Your task to perform on an android device: turn pop-ups on in chrome Image 0: 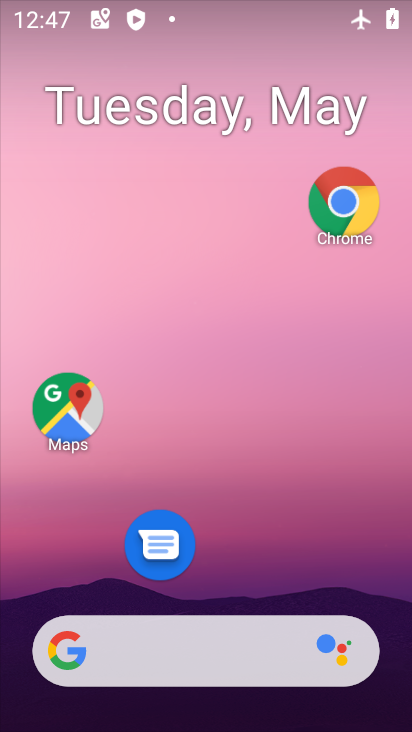
Step 0: click (352, 196)
Your task to perform on an android device: turn pop-ups on in chrome Image 1: 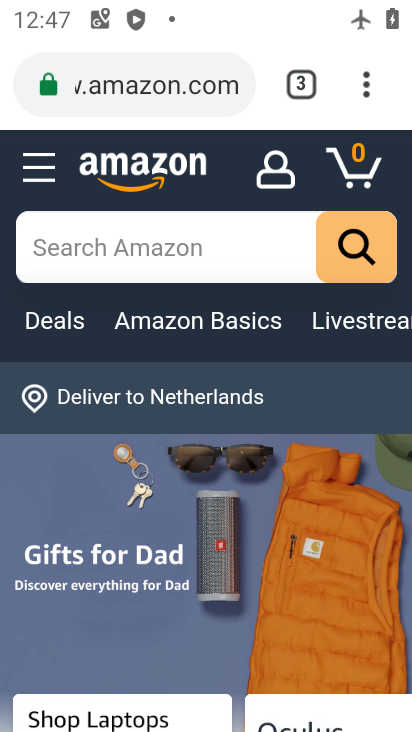
Step 1: click (377, 89)
Your task to perform on an android device: turn pop-ups on in chrome Image 2: 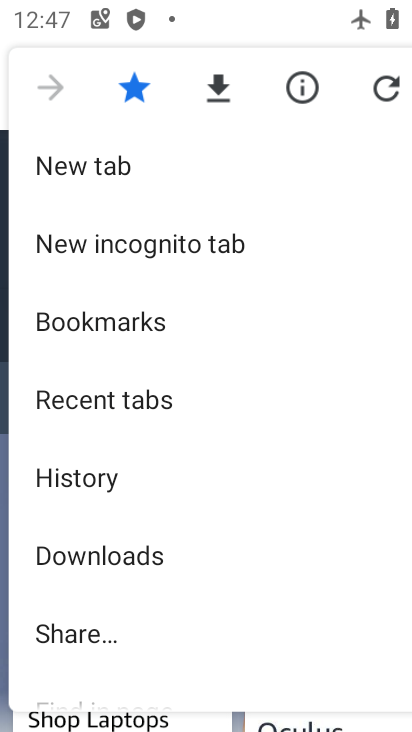
Step 2: drag from (95, 679) to (227, 218)
Your task to perform on an android device: turn pop-ups on in chrome Image 3: 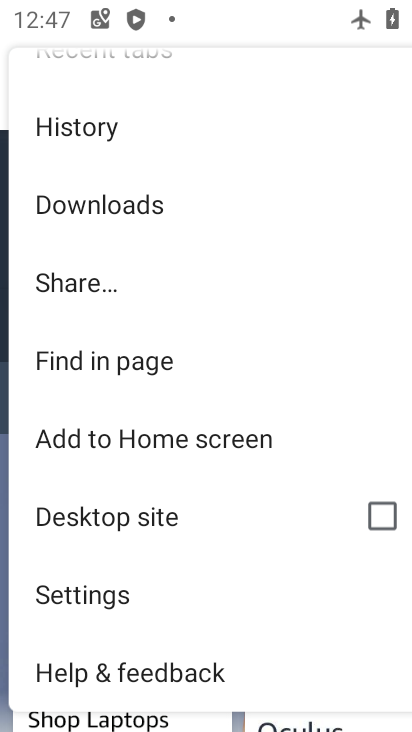
Step 3: click (94, 603)
Your task to perform on an android device: turn pop-ups on in chrome Image 4: 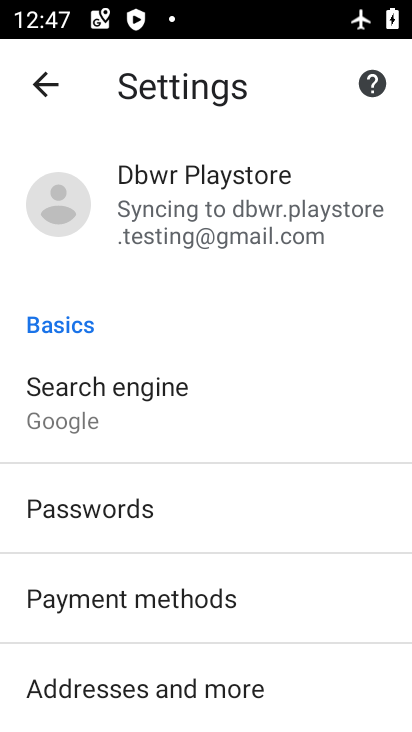
Step 4: drag from (120, 668) to (218, 207)
Your task to perform on an android device: turn pop-ups on in chrome Image 5: 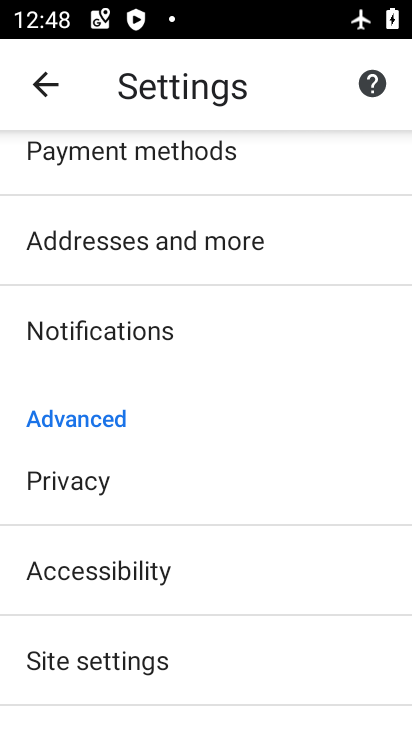
Step 5: click (132, 655)
Your task to perform on an android device: turn pop-ups on in chrome Image 6: 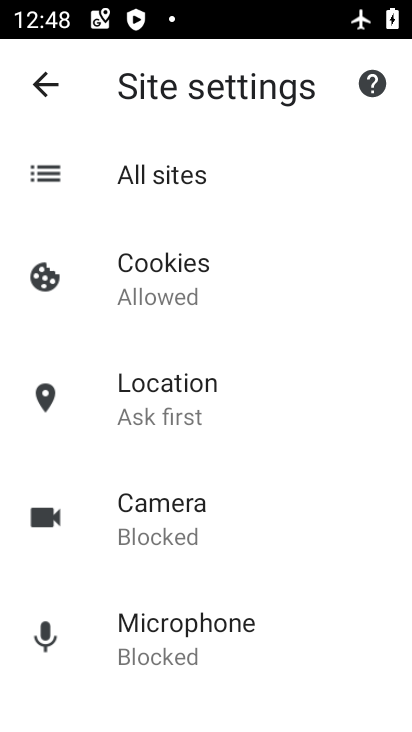
Step 6: drag from (237, 614) to (224, 1)
Your task to perform on an android device: turn pop-ups on in chrome Image 7: 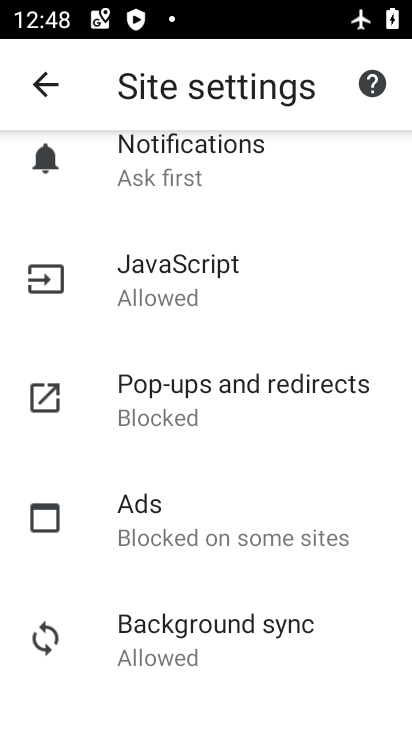
Step 7: click (279, 365)
Your task to perform on an android device: turn pop-ups on in chrome Image 8: 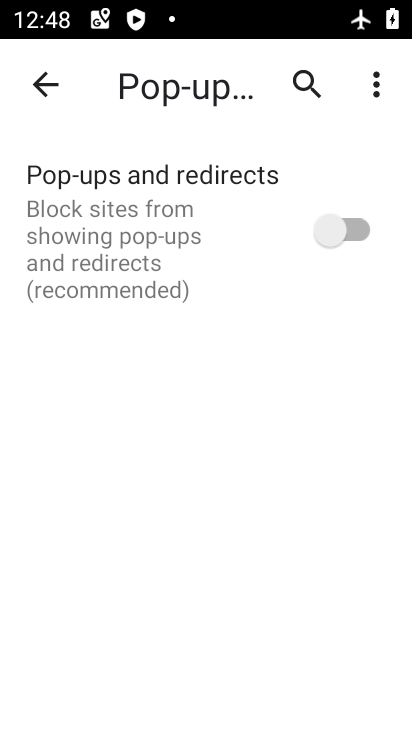
Step 8: click (347, 235)
Your task to perform on an android device: turn pop-ups on in chrome Image 9: 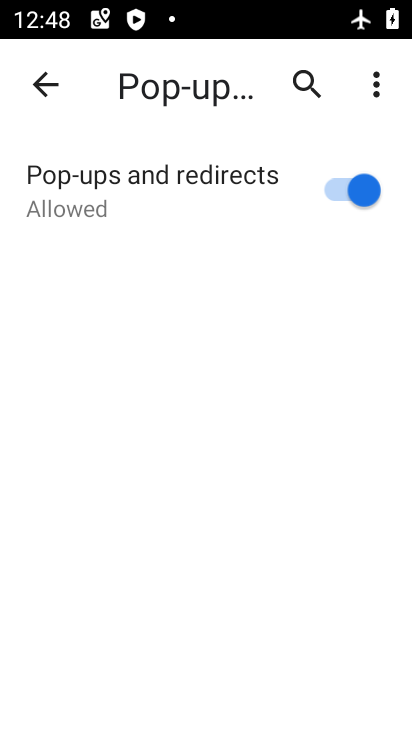
Step 9: task complete